Your task to perform on an android device: Go to battery settings Image 0: 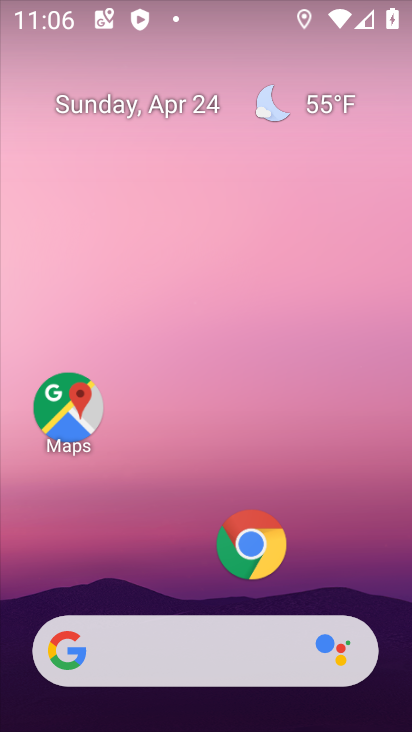
Step 0: drag from (207, 520) to (225, 223)
Your task to perform on an android device: Go to battery settings Image 1: 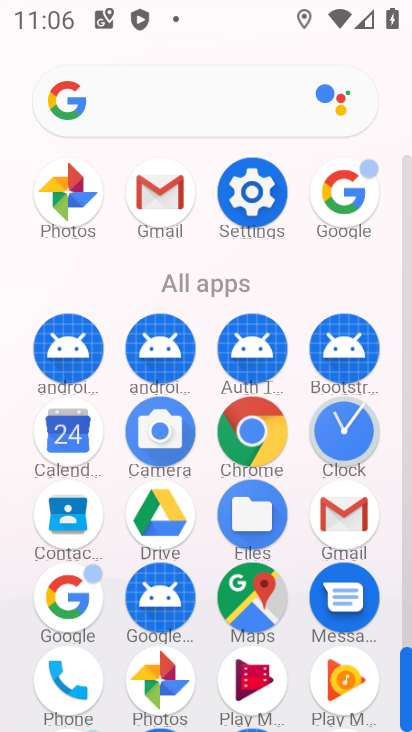
Step 1: click (232, 200)
Your task to perform on an android device: Go to battery settings Image 2: 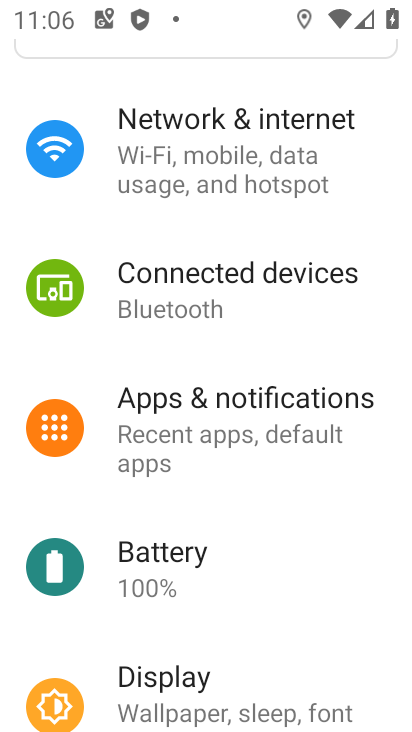
Step 2: drag from (240, 614) to (246, 546)
Your task to perform on an android device: Go to battery settings Image 3: 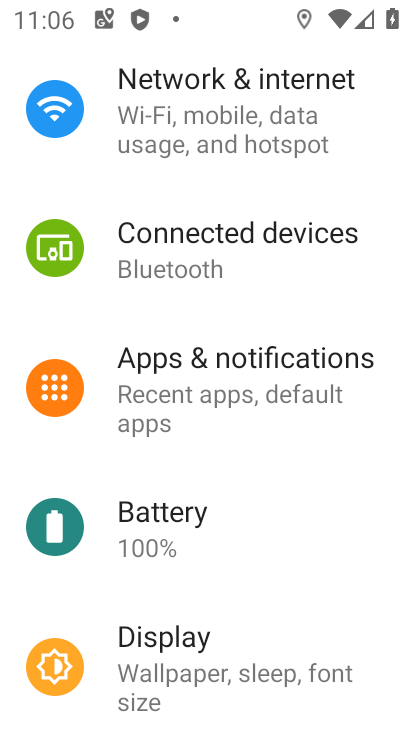
Step 3: click (208, 520)
Your task to perform on an android device: Go to battery settings Image 4: 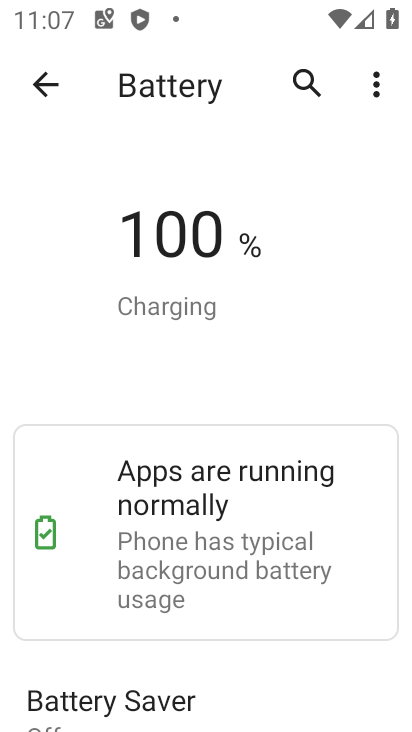
Step 4: task complete